Your task to perform on an android device: Go to battery settings Image 0: 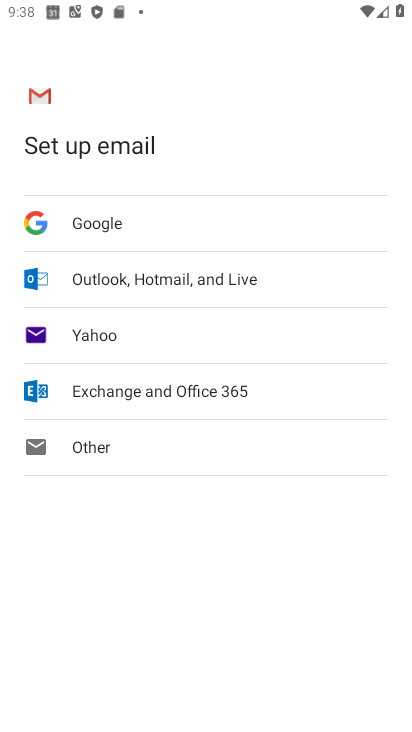
Step 0: press home button
Your task to perform on an android device: Go to battery settings Image 1: 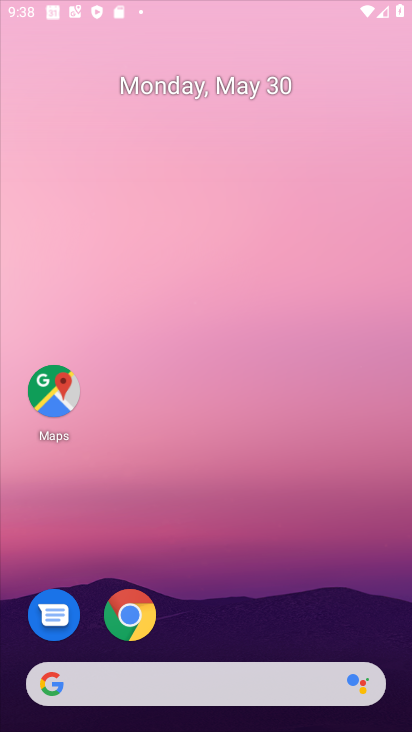
Step 1: drag from (303, 586) to (192, 0)
Your task to perform on an android device: Go to battery settings Image 2: 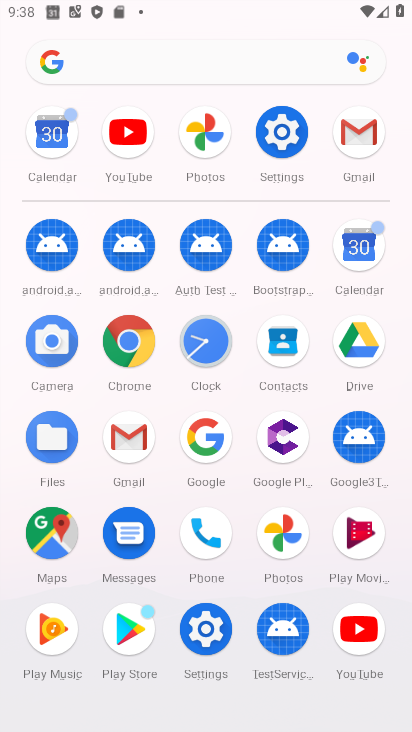
Step 2: click (280, 145)
Your task to perform on an android device: Go to battery settings Image 3: 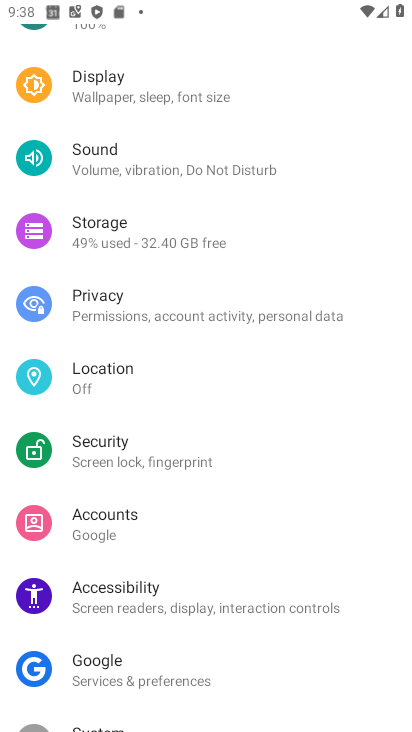
Step 3: drag from (170, 115) to (170, 589)
Your task to perform on an android device: Go to battery settings Image 4: 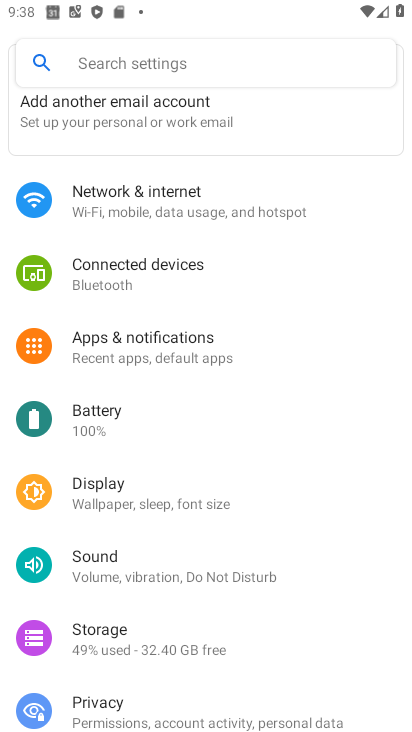
Step 4: click (189, 417)
Your task to perform on an android device: Go to battery settings Image 5: 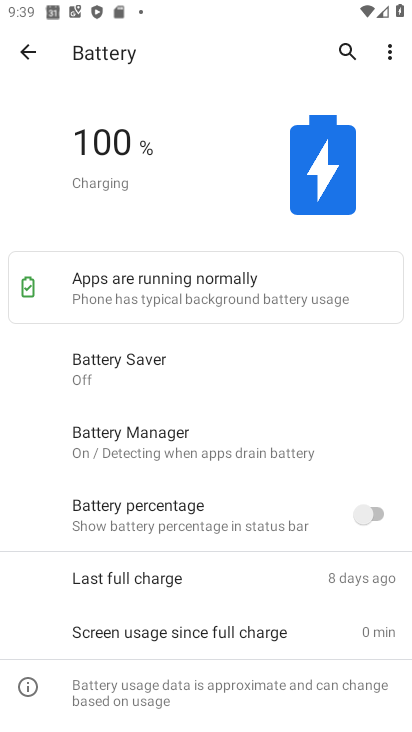
Step 5: task complete